Your task to perform on an android device: read, delete, or share a saved page in the chrome app Image 0: 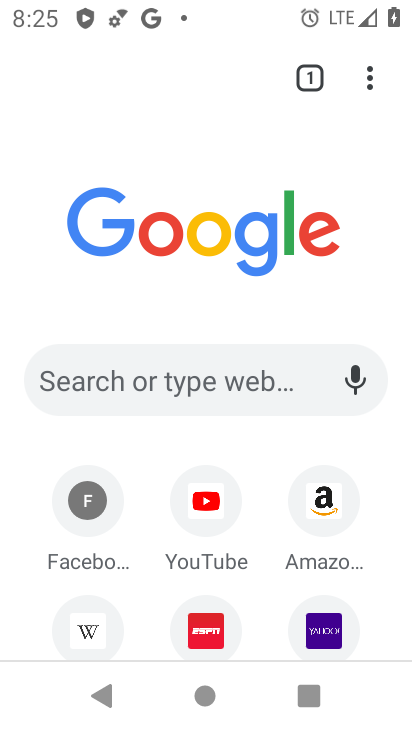
Step 0: press home button
Your task to perform on an android device: read, delete, or share a saved page in the chrome app Image 1: 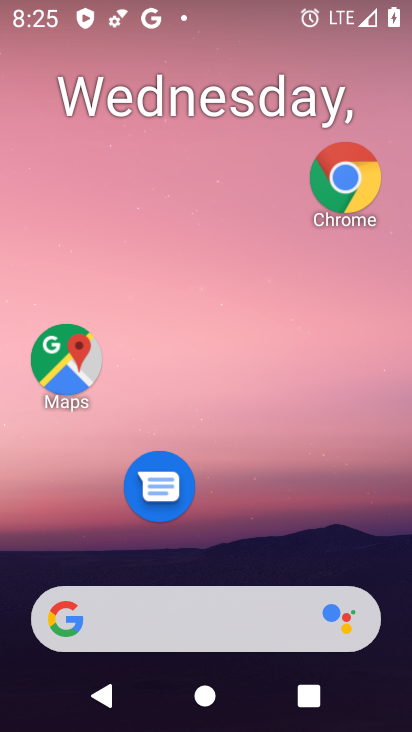
Step 1: drag from (277, 577) to (329, 123)
Your task to perform on an android device: read, delete, or share a saved page in the chrome app Image 2: 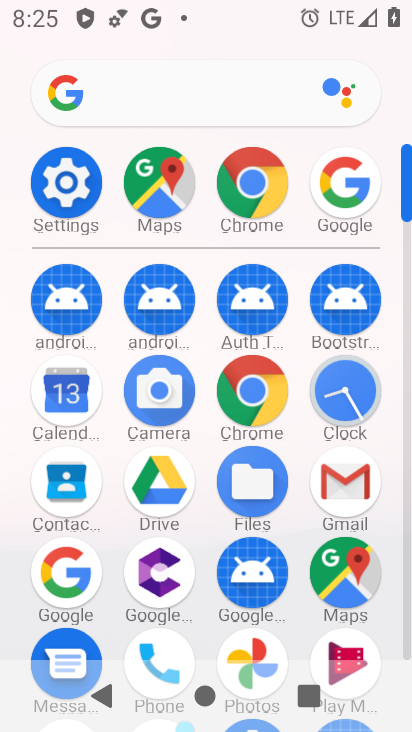
Step 2: click (261, 410)
Your task to perform on an android device: read, delete, or share a saved page in the chrome app Image 3: 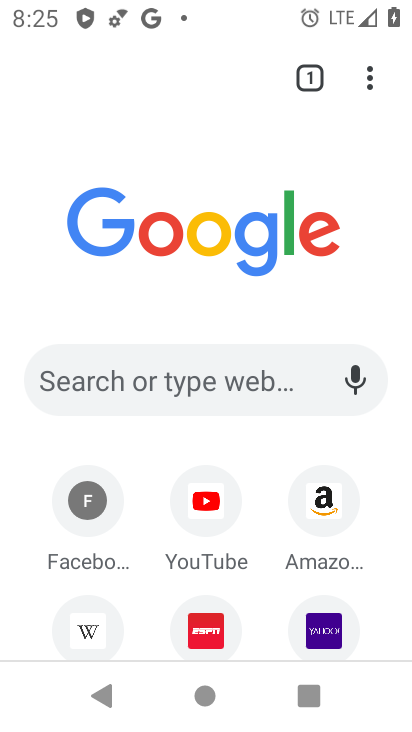
Step 3: click (373, 81)
Your task to perform on an android device: read, delete, or share a saved page in the chrome app Image 4: 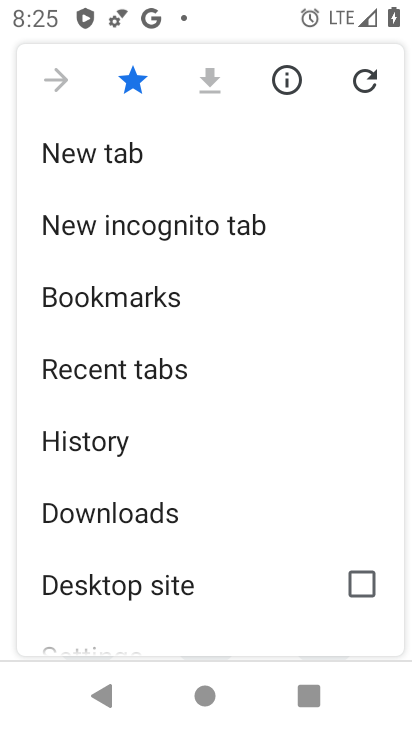
Step 4: click (113, 509)
Your task to perform on an android device: read, delete, or share a saved page in the chrome app Image 5: 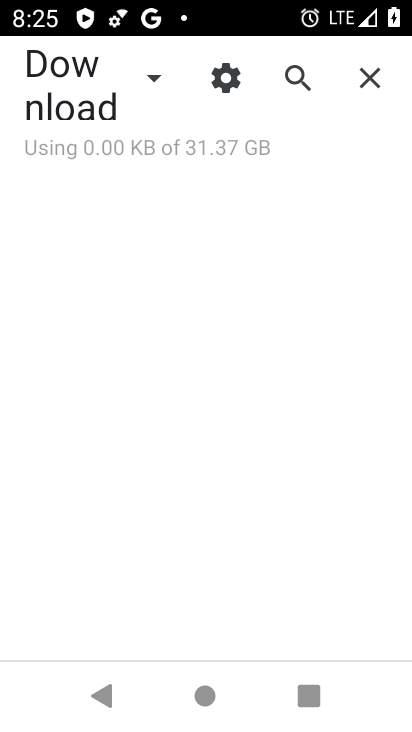
Step 5: click (148, 76)
Your task to perform on an android device: read, delete, or share a saved page in the chrome app Image 6: 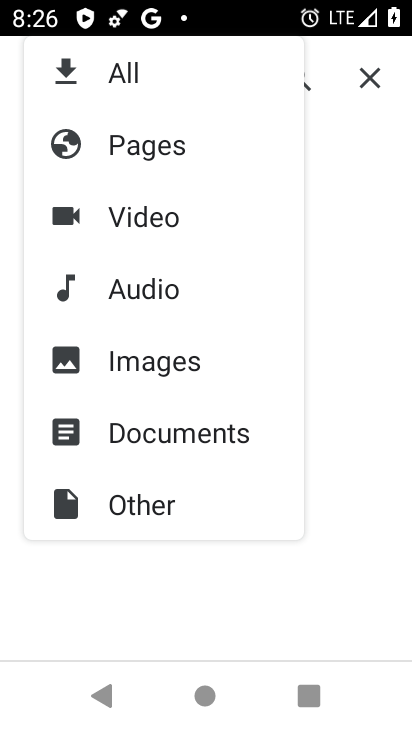
Step 6: click (166, 154)
Your task to perform on an android device: read, delete, or share a saved page in the chrome app Image 7: 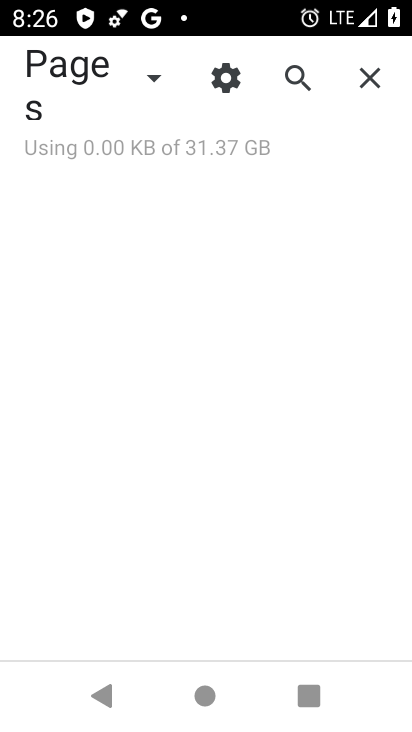
Step 7: task complete